Your task to perform on an android device: Open calendar and show me the third week of next month Image 0: 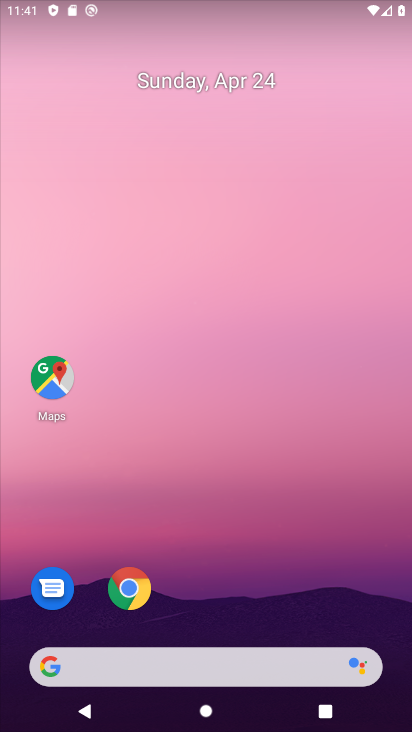
Step 0: drag from (248, 300) to (251, 54)
Your task to perform on an android device: Open calendar and show me the third week of next month Image 1: 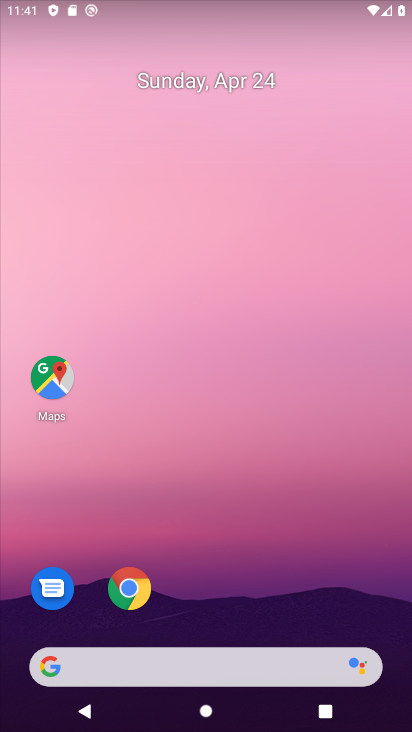
Step 1: drag from (291, 521) to (321, 5)
Your task to perform on an android device: Open calendar and show me the third week of next month Image 2: 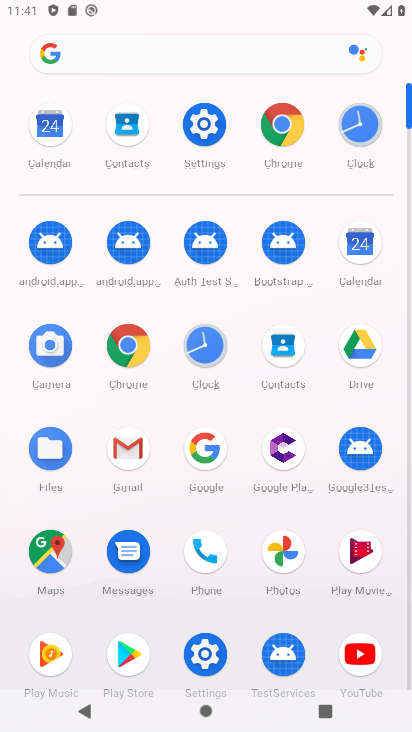
Step 2: click (54, 129)
Your task to perform on an android device: Open calendar and show me the third week of next month Image 3: 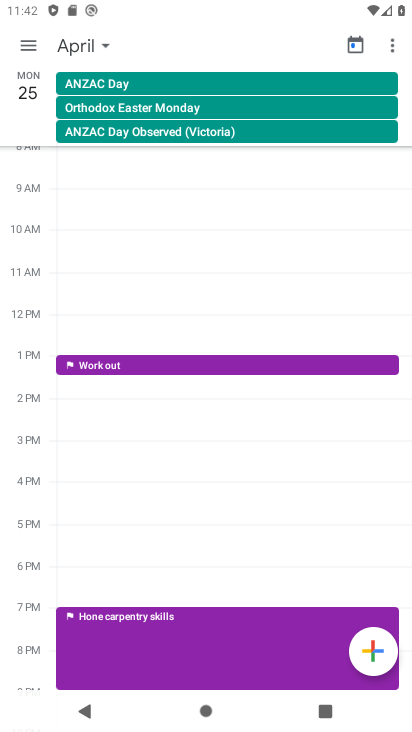
Step 3: click (103, 43)
Your task to perform on an android device: Open calendar and show me the third week of next month Image 4: 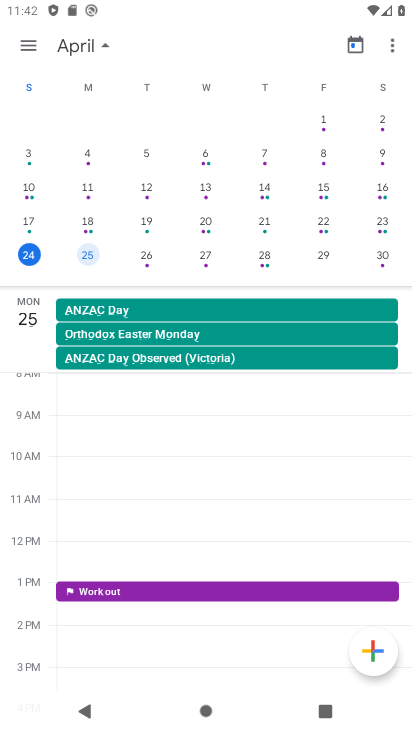
Step 4: drag from (369, 199) to (26, 192)
Your task to perform on an android device: Open calendar and show me the third week of next month Image 5: 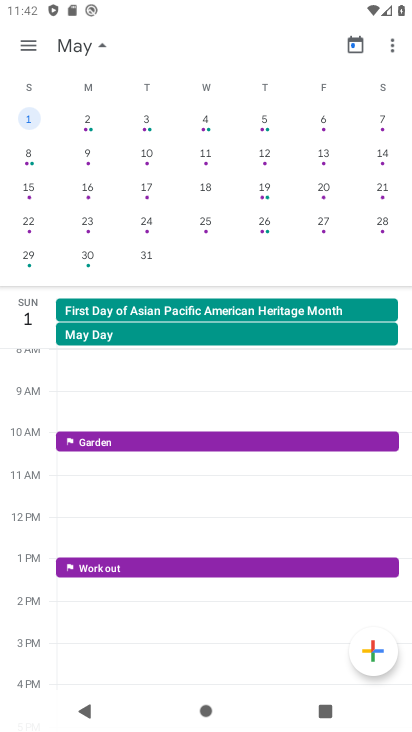
Step 5: click (25, 190)
Your task to perform on an android device: Open calendar and show me the third week of next month Image 6: 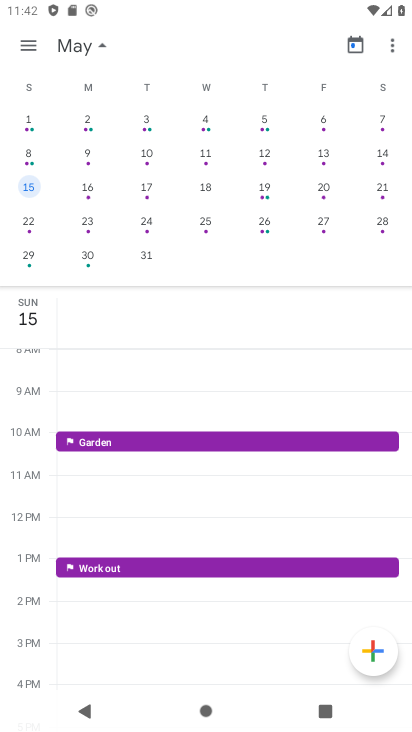
Step 6: task complete